Your task to perform on an android device: toggle javascript in the chrome app Image 0: 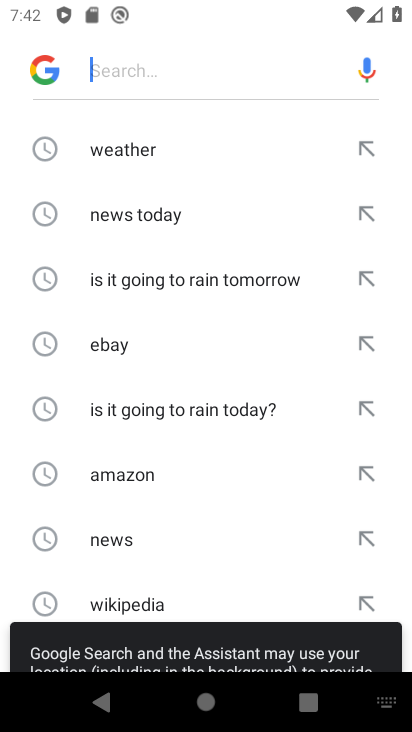
Step 0: press home button
Your task to perform on an android device: toggle javascript in the chrome app Image 1: 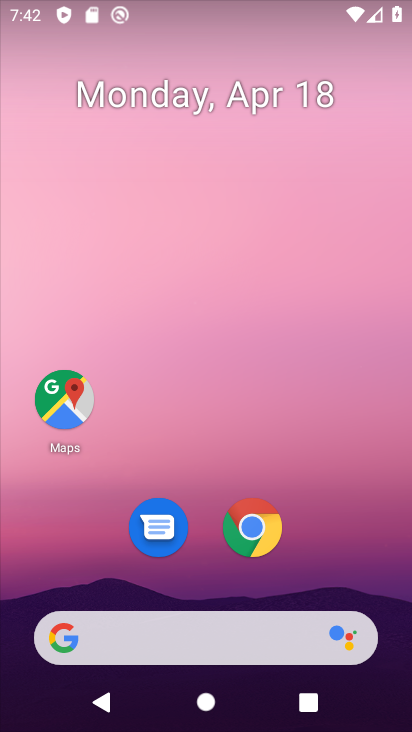
Step 1: click (272, 536)
Your task to perform on an android device: toggle javascript in the chrome app Image 2: 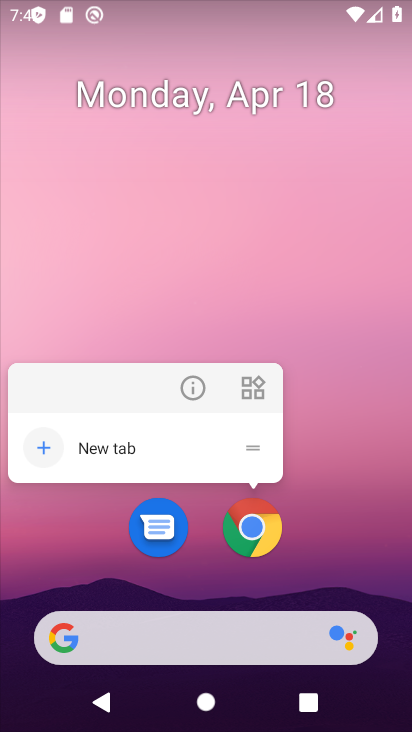
Step 2: click (274, 540)
Your task to perform on an android device: toggle javascript in the chrome app Image 3: 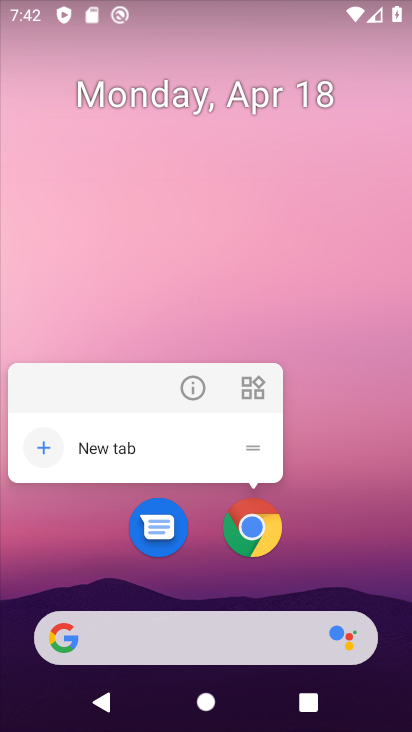
Step 3: click (250, 552)
Your task to perform on an android device: toggle javascript in the chrome app Image 4: 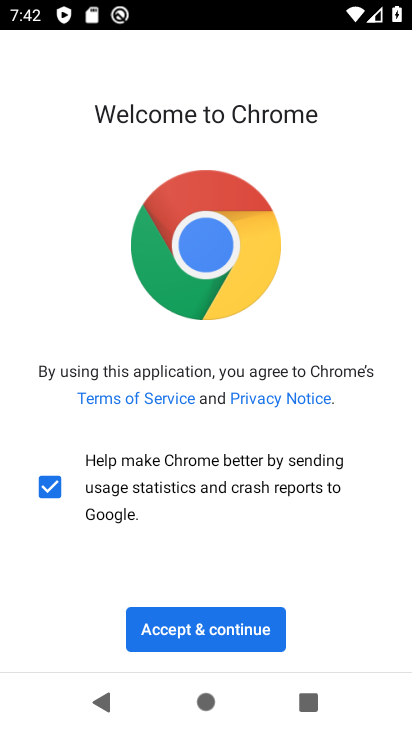
Step 4: click (205, 627)
Your task to perform on an android device: toggle javascript in the chrome app Image 5: 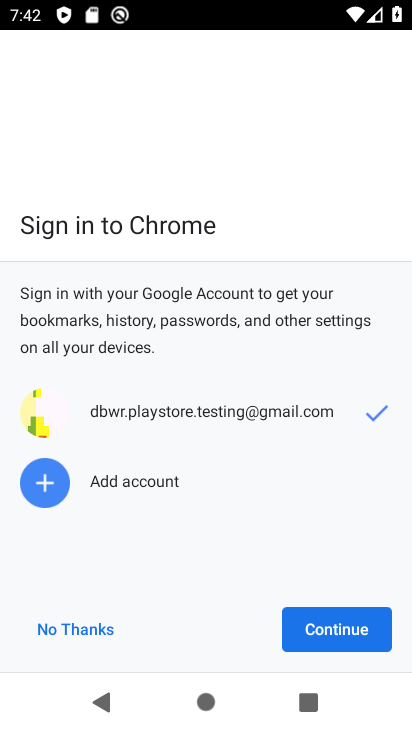
Step 5: click (345, 622)
Your task to perform on an android device: toggle javascript in the chrome app Image 6: 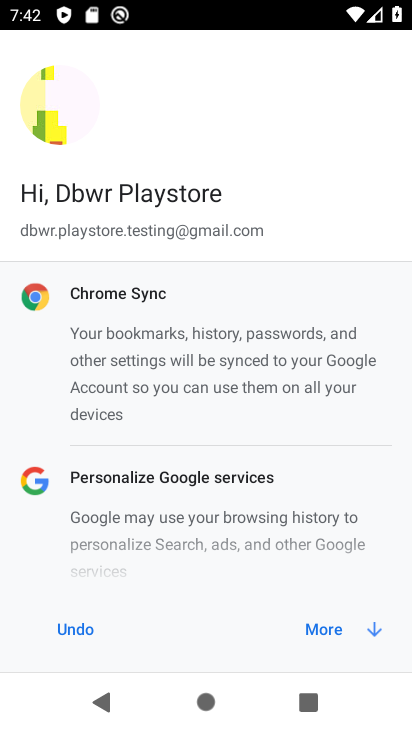
Step 6: click (345, 622)
Your task to perform on an android device: toggle javascript in the chrome app Image 7: 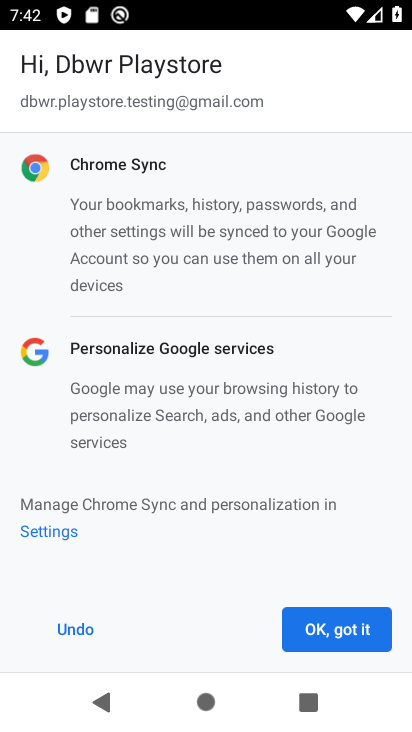
Step 7: click (345, 622)
Your task to perform on an android device: toggle javascript in the chrome app Image 8: 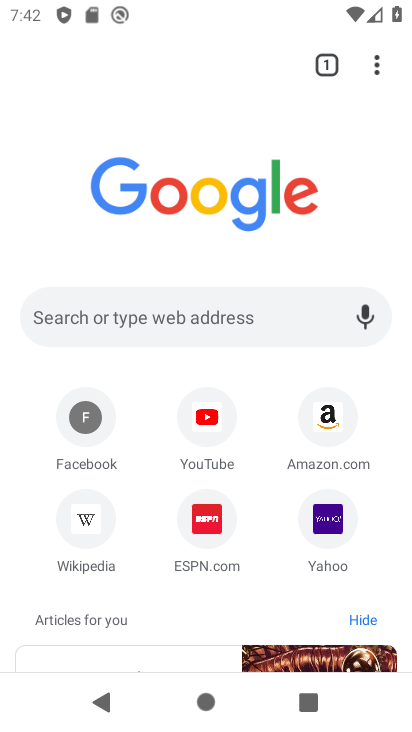
Step 8: click (368, 71)
Your task to perform on an android device: toggle javascript in the chrome app Image 9: 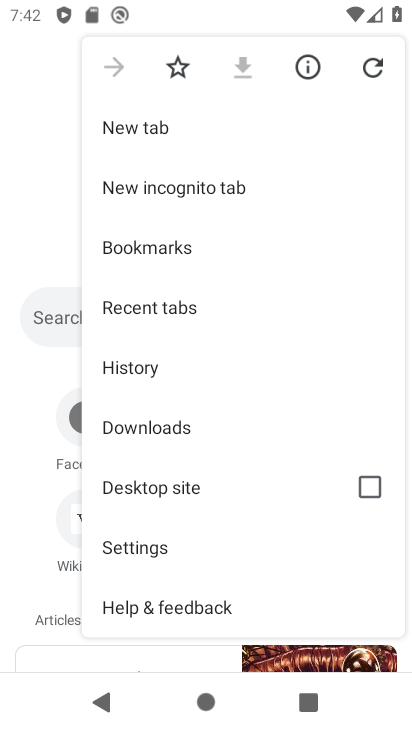
Step 9: click (156, 549)
Your task to perform on an android device: toggle javascript in the chrome app Image 10: 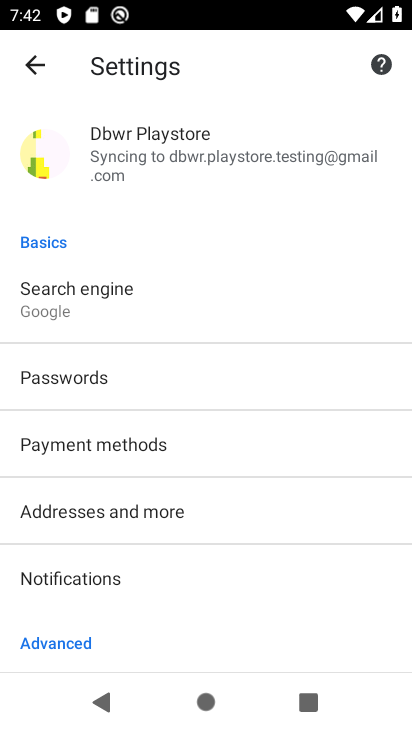
Step 10: drag from (334, 594) to (369, 261)
Your task to perform on an android device: toggle javascript in the chrome app Image 11: 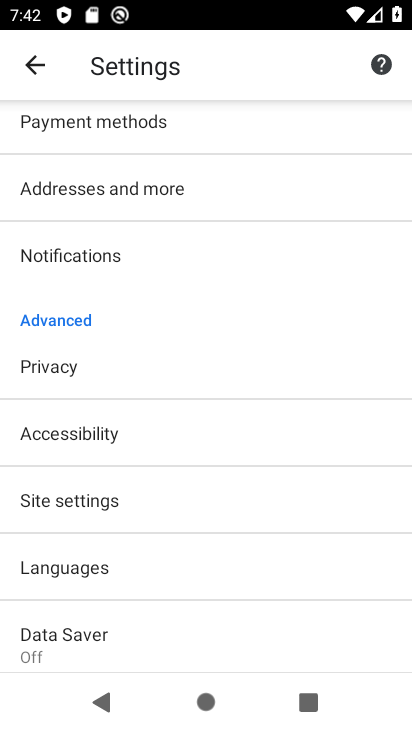
Step 11: click (72, 507)
Your task to perform on an android device: toggle javascript in the chrome app Image 12: 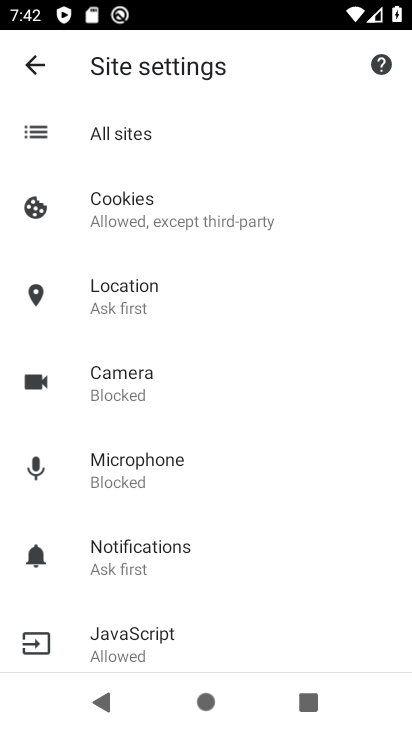
Step 12: drag from (309, 582) to (351, 278)
Your task to perform on an android device: toggle javascript in the chrome app Image 13: 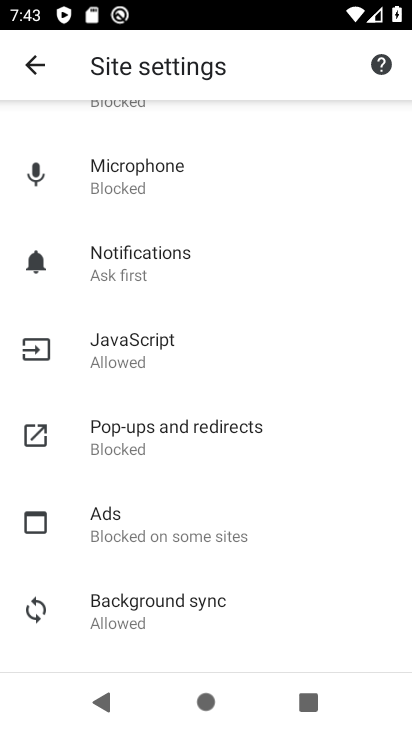
Step 13: click (122, 336)
Your task to perform on an android device: toggle javascript in the chrome app Image 14: 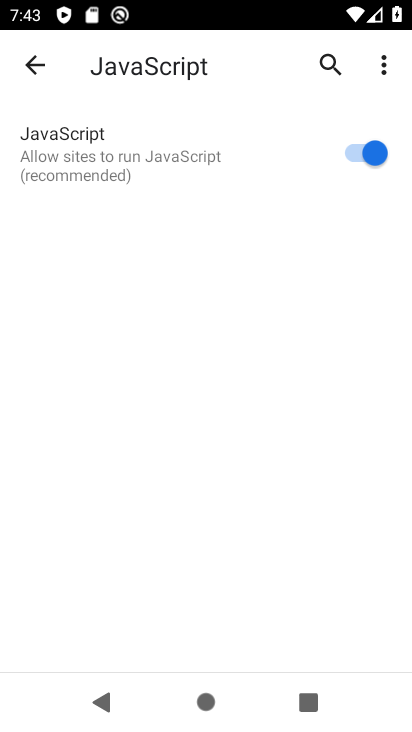
Step 14: click (353, 156)
Your task to perform on an android device: toggle javascript in the chrome app Image 15: 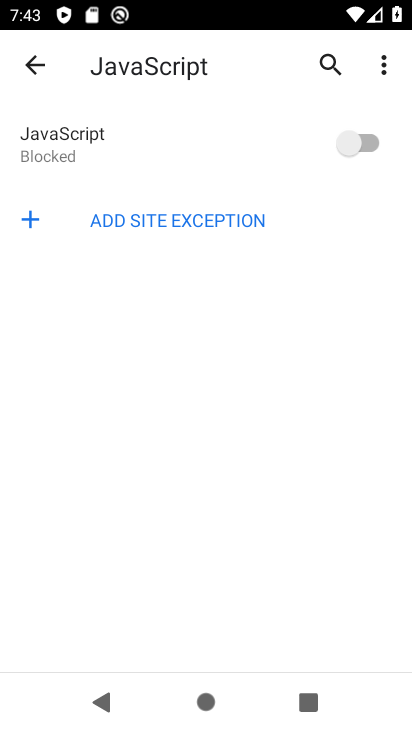
Step 15: task complete